Your task to perform on an android device: change text size in settings app Image 0: 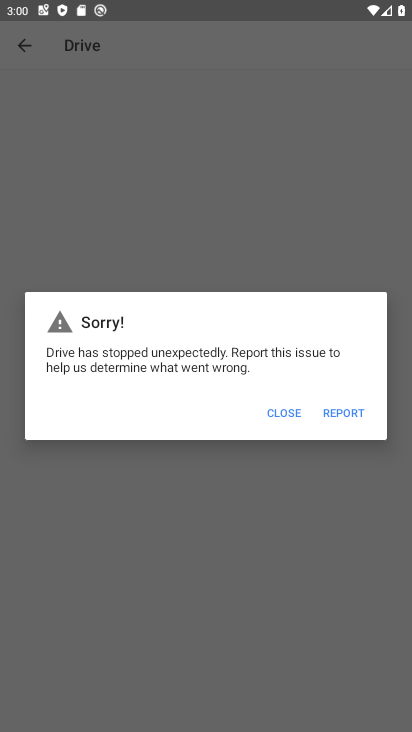
Step 0: press home button
Your task to perform on an android device: change text size in settings app Image 1: 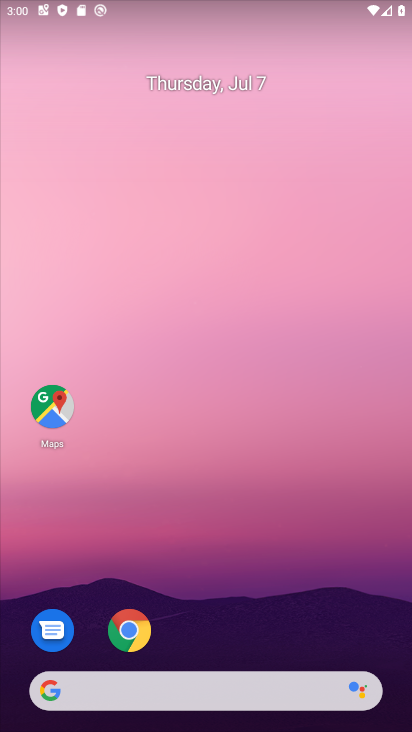
Step 1: drag from (203, 589) to (250, 146)
Your task to perform on an android device: change text size in settings app Image 2: 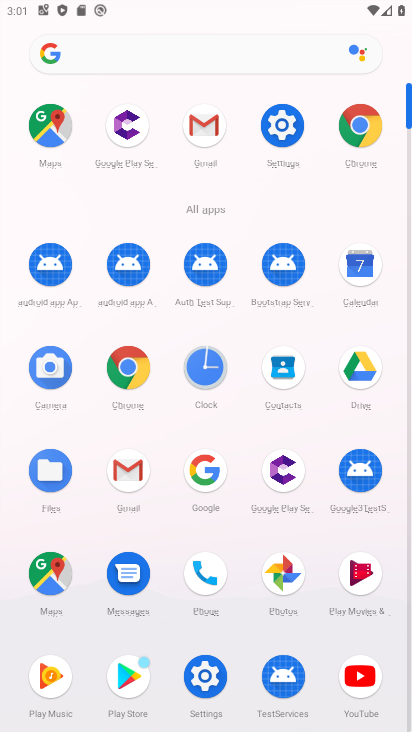
Step 2: click (217, 679)
Your task to perform on an android device: change text size in settings app Image 3: 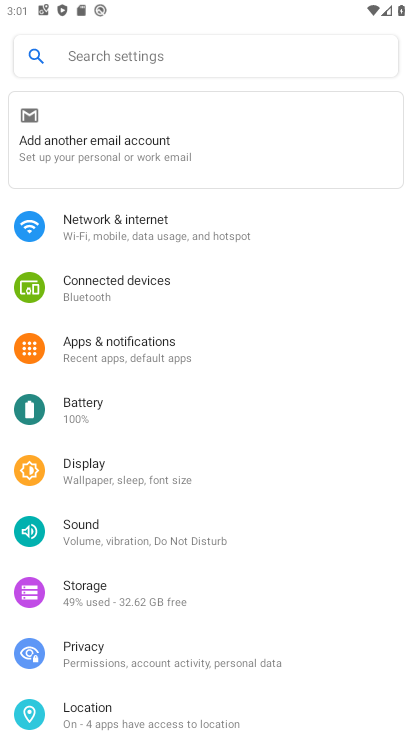
Step 3: click (147, 480)
Your task to perform on an android device: change text size in settings app Image 4: 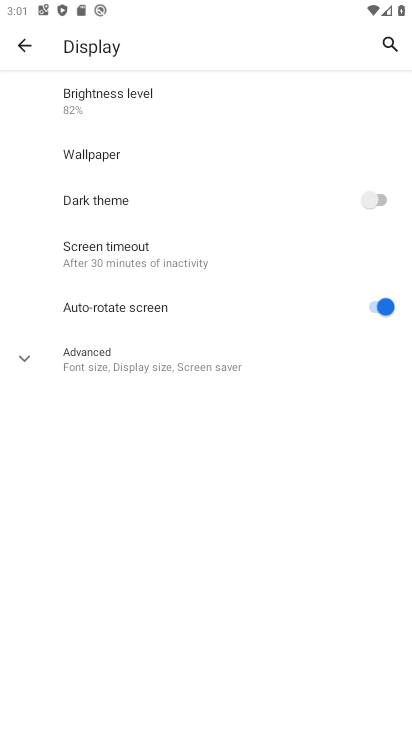
Step 4: click (152, 371)
Your task to perform on an android device: change text size in settings app Image 5: 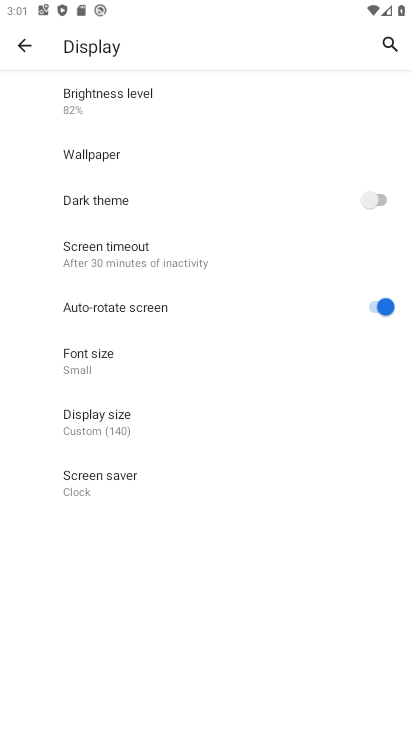
Step 5: click (90, 364)
Your task to perform on an android device: change text size in settings app Image 6: 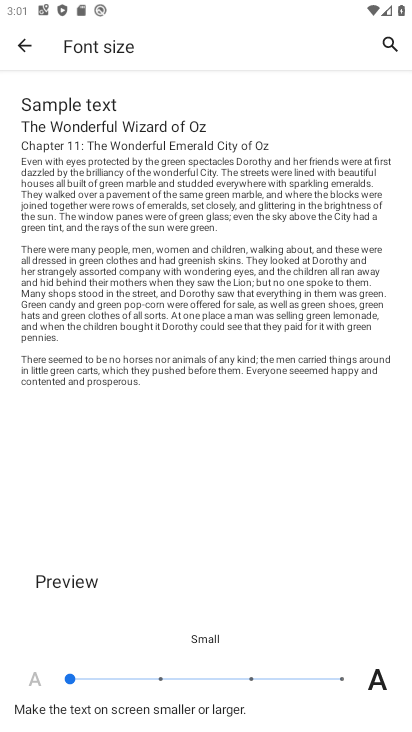
Step 6: click (247, 675)
Your task to perform on an android device: change text size in settings app Image 7: 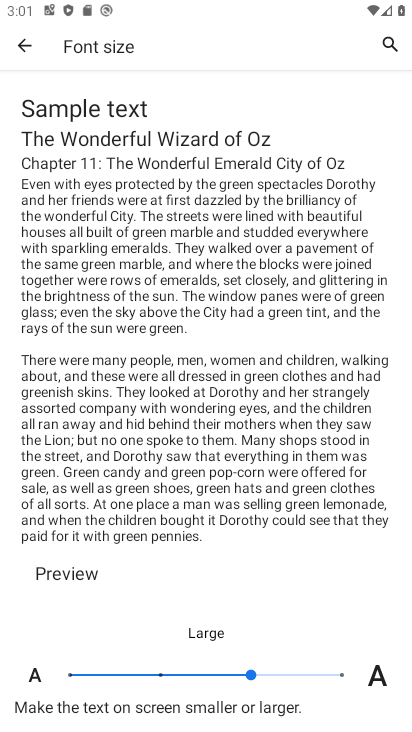
Step 7: task complete